Your task to perform on an android device: Open maps Image 0: 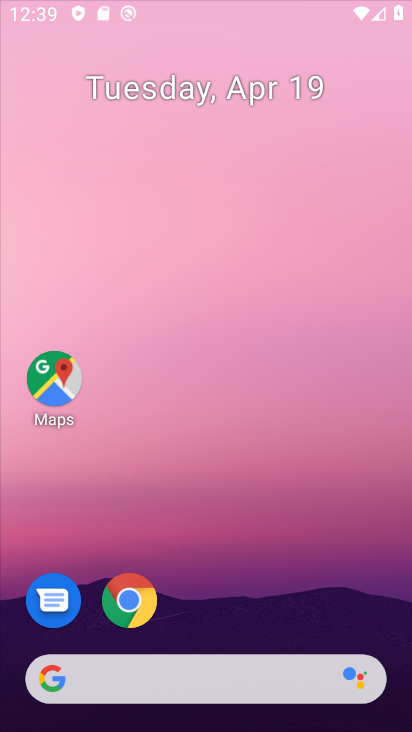
Step 0: drag from (209, 644) to (198, 81)
Your task to perform on an android device: Open maps Image 1: 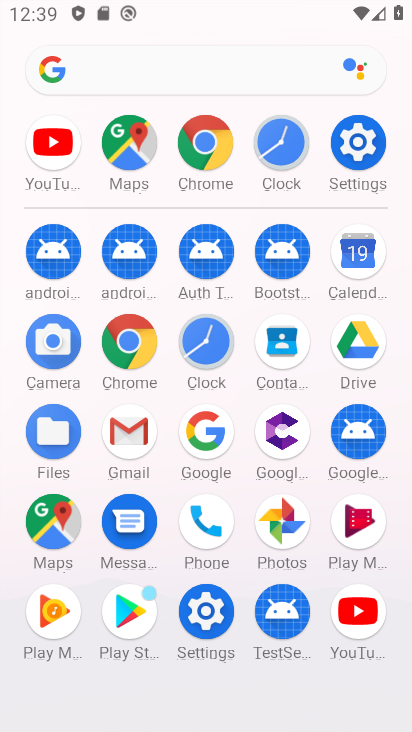
Step 1: click (39, 529)
Your task to perform on an android device: Open maps Image 2: 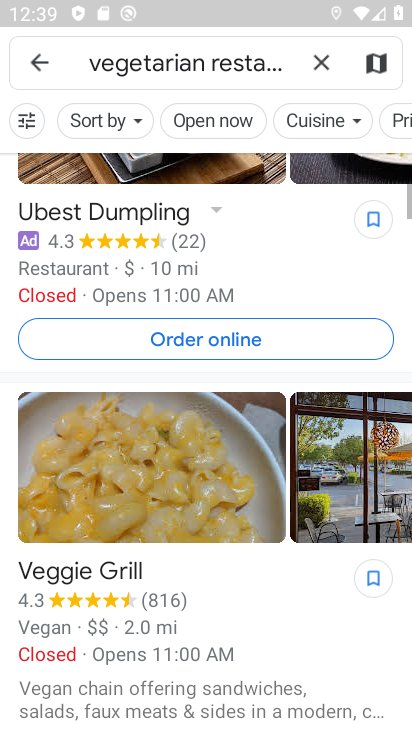
Step 2: task complete